Your task to perform on an android device: Open Google Maps Image 0: 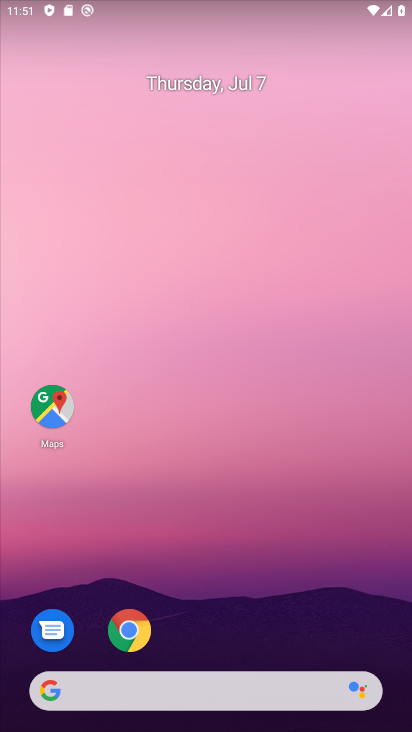
Step 0: drag from (388, 662) to (306, 64)
Your task to perform on an android device: Open Google Maps Image 1: 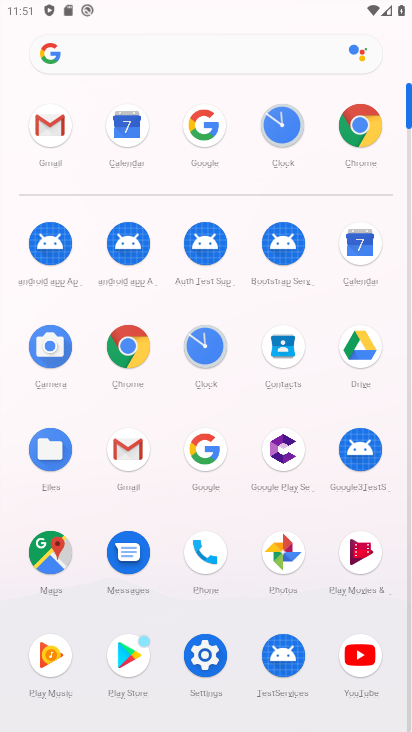
Step 1: click (40, 548)
Your task to perform on an android device: Open Google Maps Image 2: 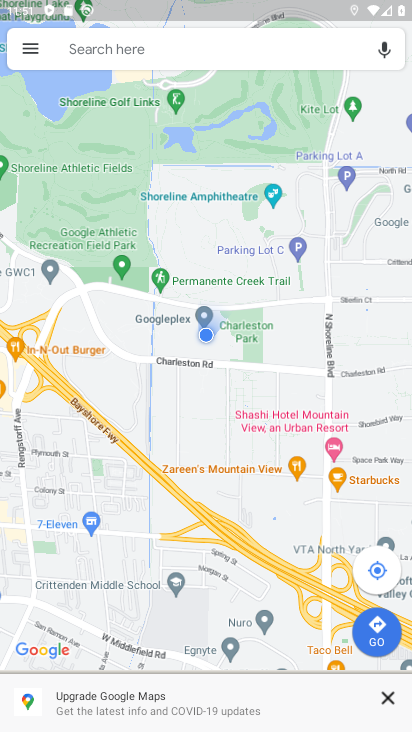
Step 2: task complete